Your task to perform on an android device: toggle improve location accuracy Image 0: 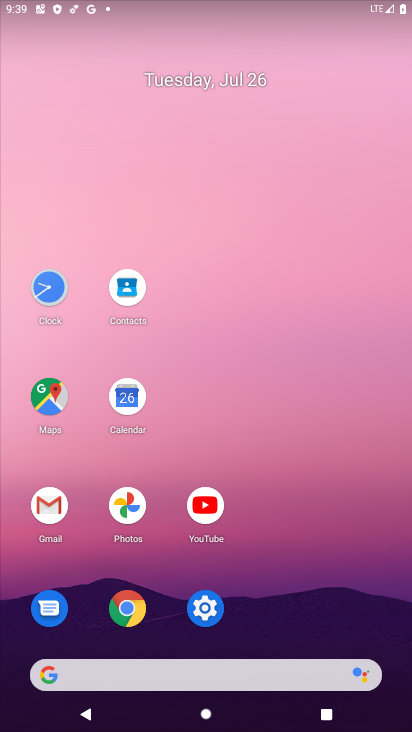
Step 0: click (206, 608)
Your task to perform on an android device: toggle improve location accuracy Image 1: 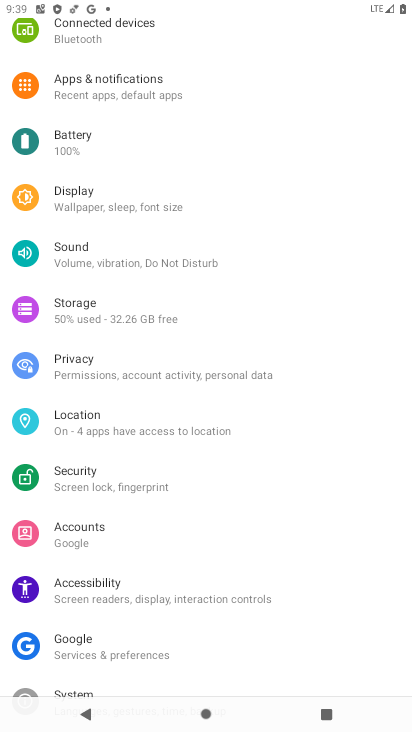
Step 1: click (78, 414)
Your task to perform on an android device: toggle improve location accuracy Image 2: 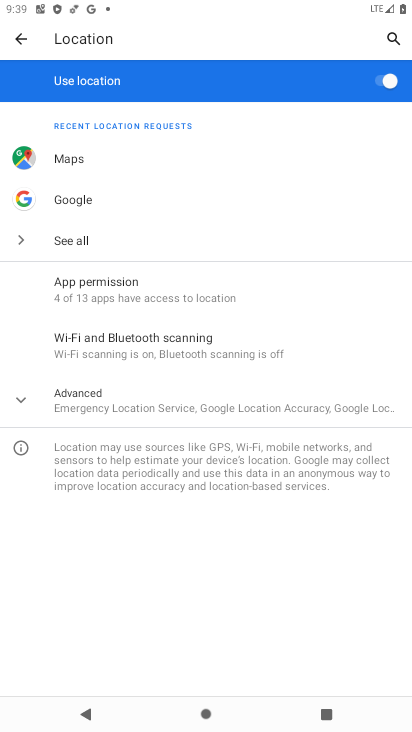
Step 2: click (19, 400)
Your task to perform on an android device: toggle improve location accuracy Image 3: 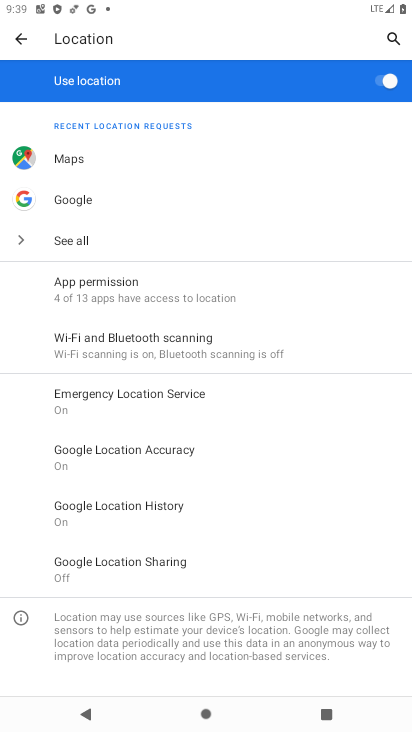
Step 3: click (137, 446)
Your task to perform on an android device: toggle improve location accuracy Image 4: 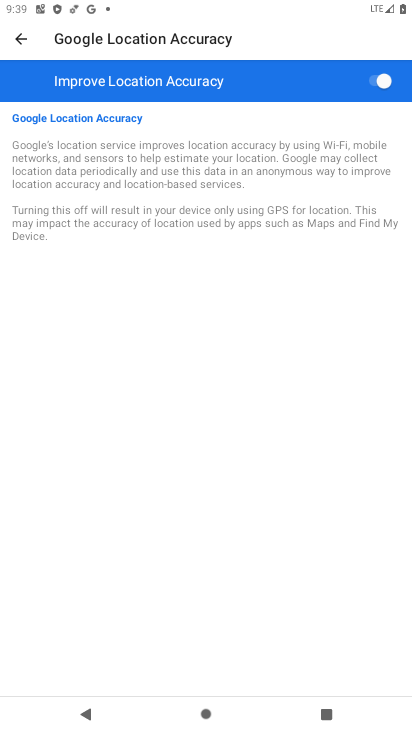
Step 4: click (383, 82)
Your task to perform on an android device: toggle improve location accuracy Image 5: 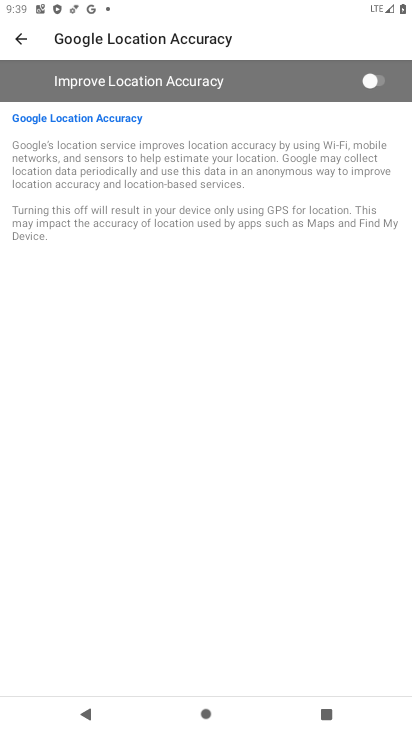
Step 5: task complete